Your task to perform on an android device: move a message to another label in the gmail app Image 0: 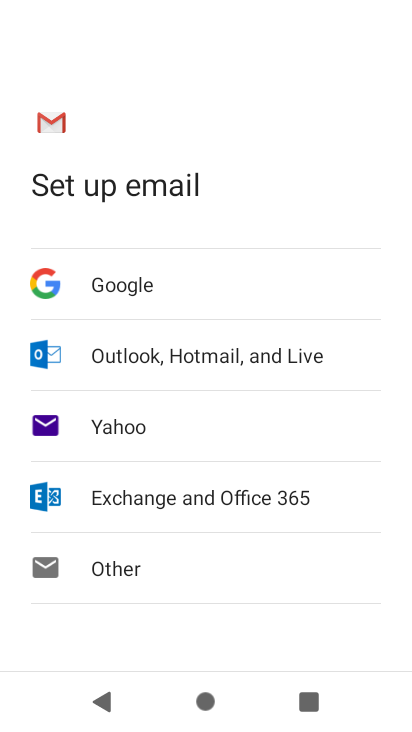
Step 0: press home button
Your task to perform on an android device: move a message to another label in the gmail app Image 1: 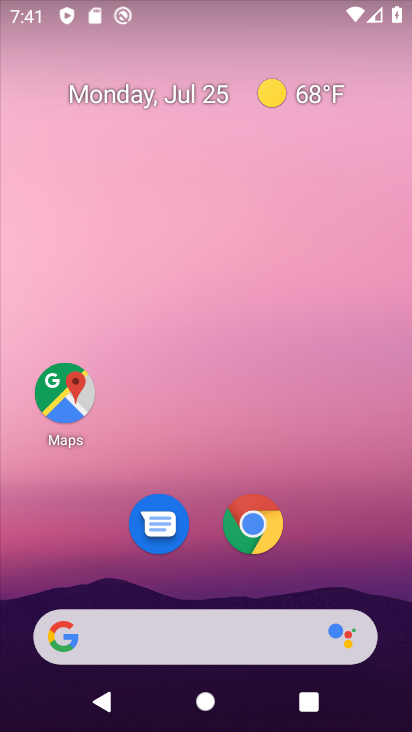
Step 1: drag from (327, 533) to (316, 109)
Your task to perform on an android device: move a message to another label in the gmail app Image 2: 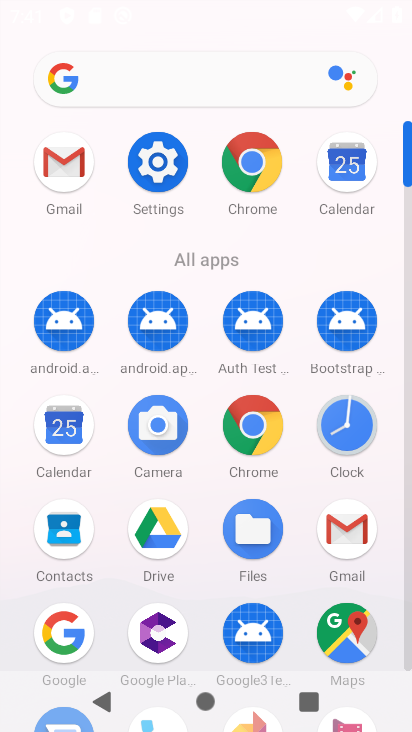
Step 2: click (68, 157)
Your task to perform on an android device: move a message to another label in the gmail app Image 3: 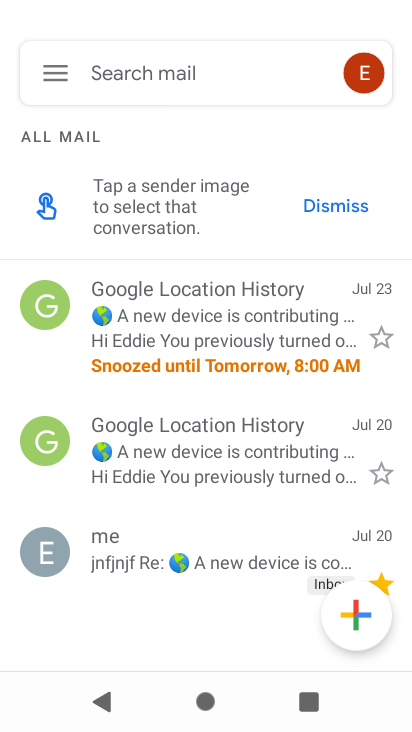
Step 3: click (215, 557)
Your task to perform on an android device: move a message to another label in the gmail app Image 4: 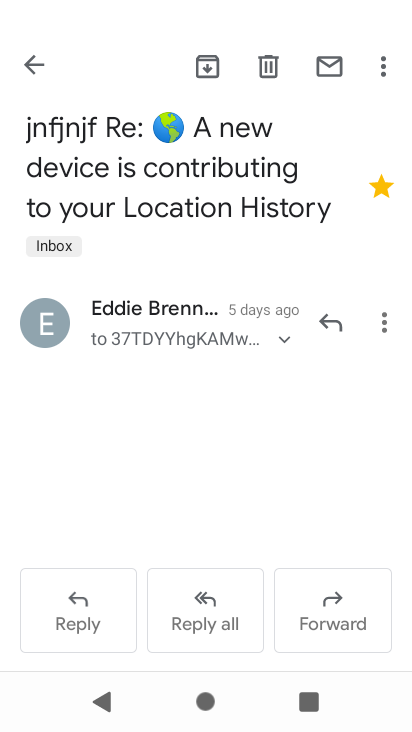
Step 4: click (383, 64)
Your task to perform on an android device: move a message to another label in the gmail app Image 5: 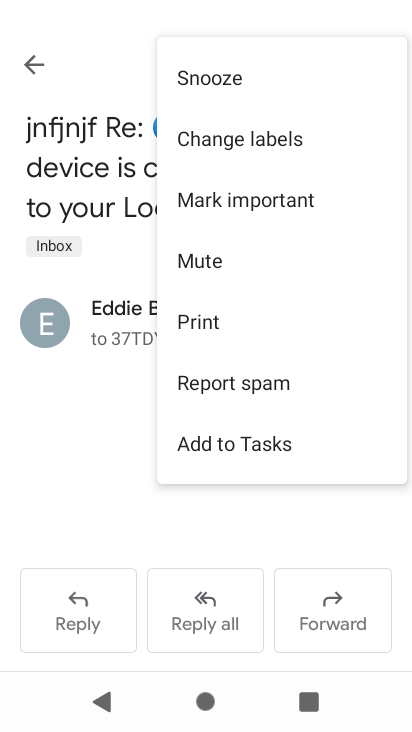
Step 5: click (66, 422)
Your task to perform on an android device: move a message to another label in the gmail app Image 6: 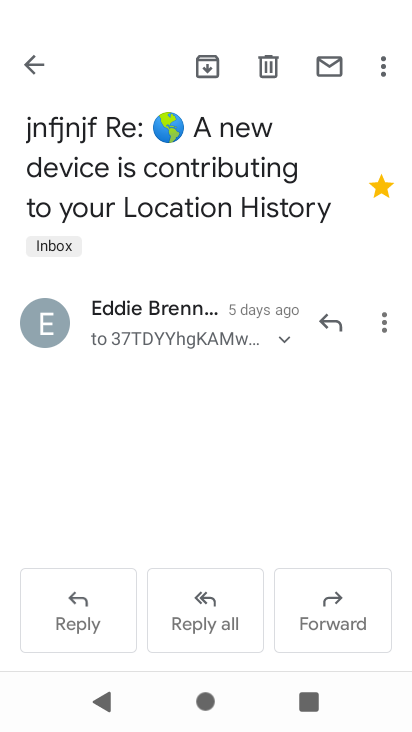
Step 6: click (380, 323)
Your task to perform on an android device: move a message to another label in the gmail app Image 7: 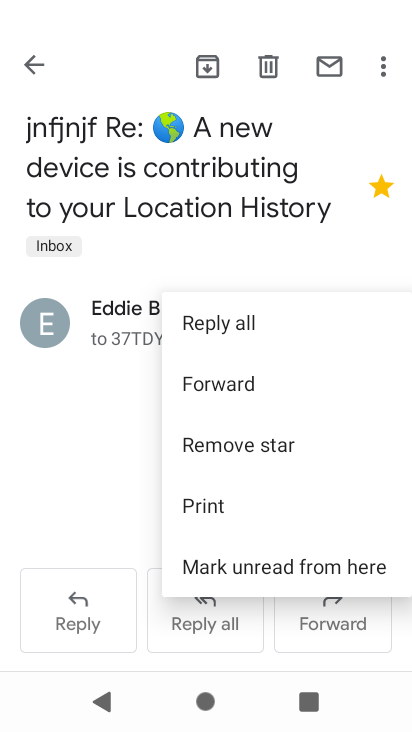
Step 7: click (57, 429)
Your task to perform on an android device: move a message to another label in the gmail app Image 8: 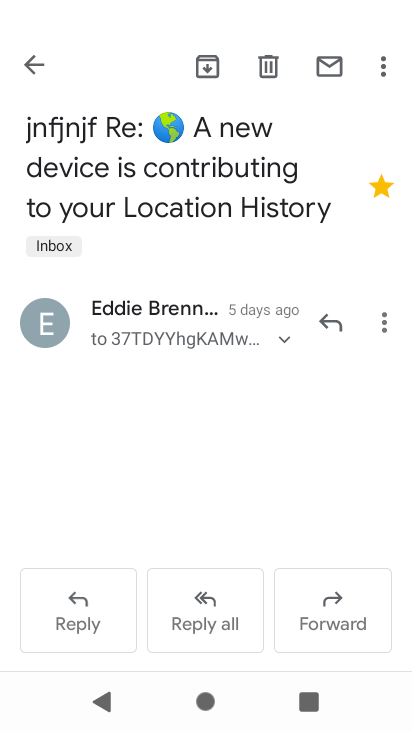
Step 8: click (382, 75)
Your task to perform on an android device: move a message to another label in the gmail app Image 9: 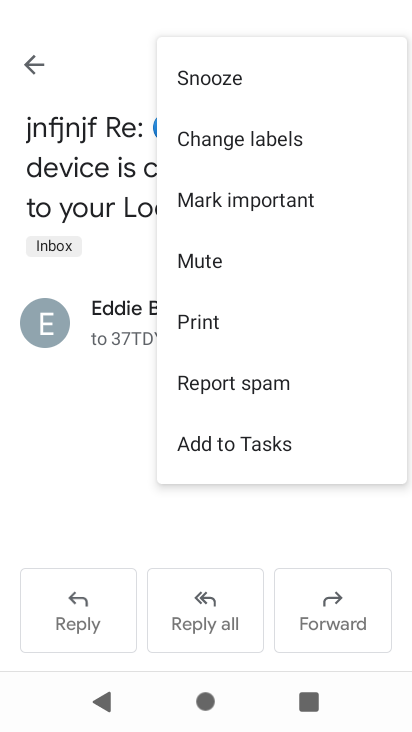
Step 9: click (298, 141)
Your task to perform on an android device: move a message to another label in the gmail app Image 10: 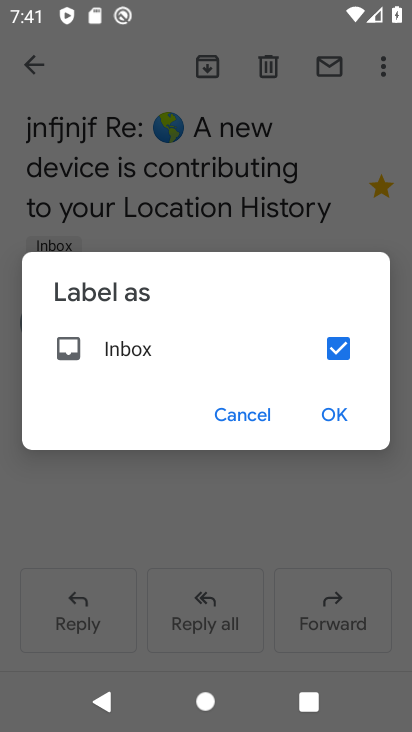
Step 10: click (342, 348)
Your task to perform on an android device: move a message to another label in the gmail app Image 11: 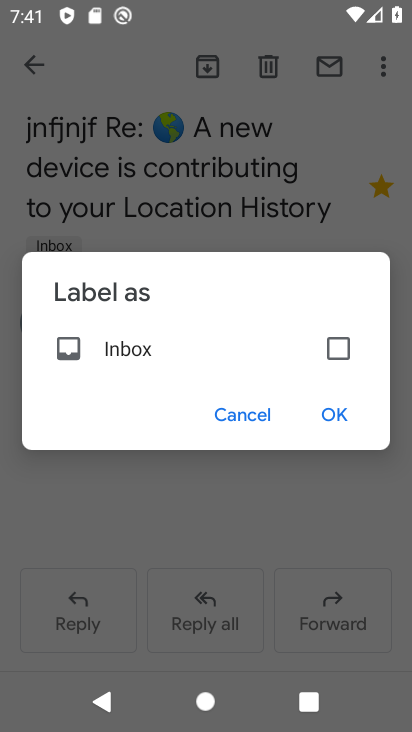
Step 11: click (344, 417)
Your task to perform on an android device: move a message to another label in the gmail app Image 12: 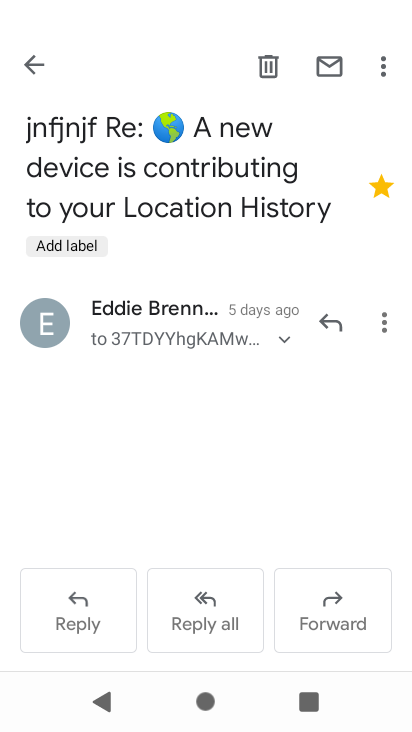
Step 12: click (40, 65)
Your task to perform on an android device: move a message to another label in the gmail app Image 13: 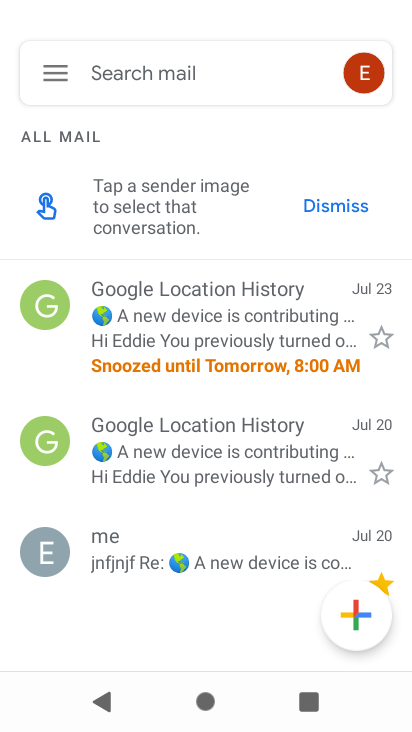
Step 13: task complete